Your task to perform on an android device: toggle improve location accuracy Image 0: 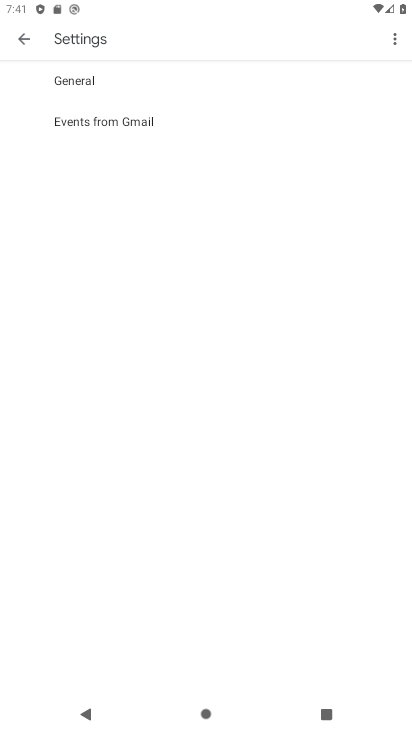
Step 0: press home button
Your task to perform on an android device: toggle improve location accuracy Image 1: 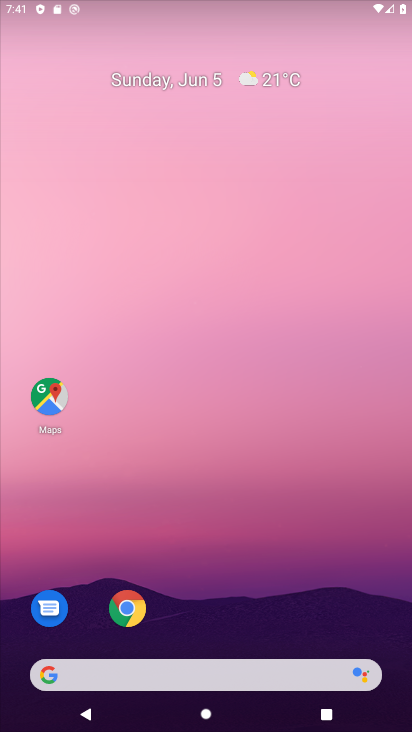
Step 1: drag from (289, 360) to (287, 113)
Your task to perform on an android device: toggle improve location accuracy Image 2: 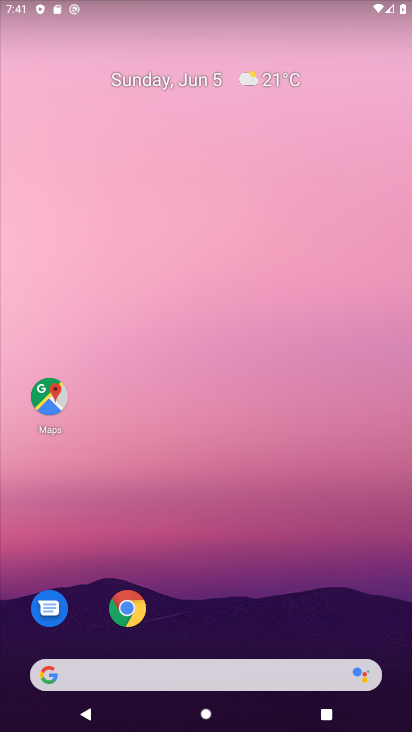
Step 2: drag from (340, 544) to (332, 191)
Your task to perform on an android device: toggle improve location accuracy Image 3: 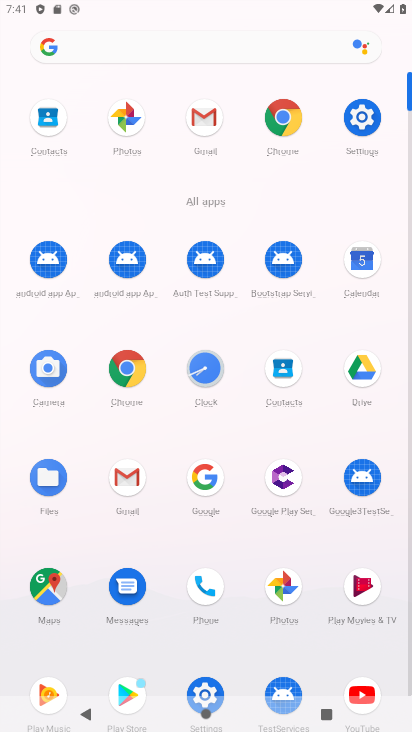
Step 3: click (344, 121)
Your task to perform on an android device: toggle improve location accuracy Image 4: 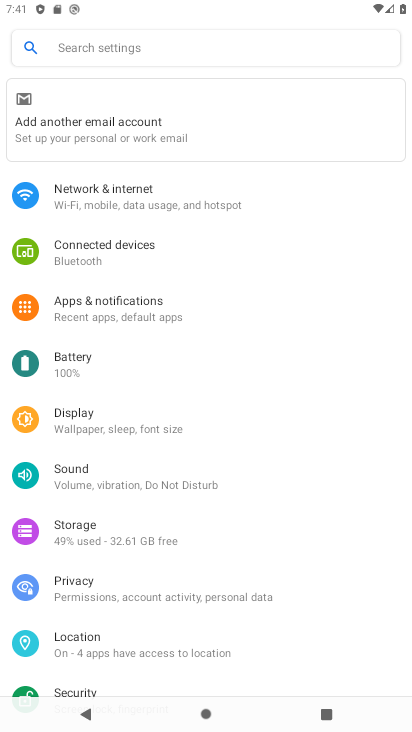
Step 4: click (204, 645)
Your task to perform on an android device: toggle improve location accuracy Image 5: 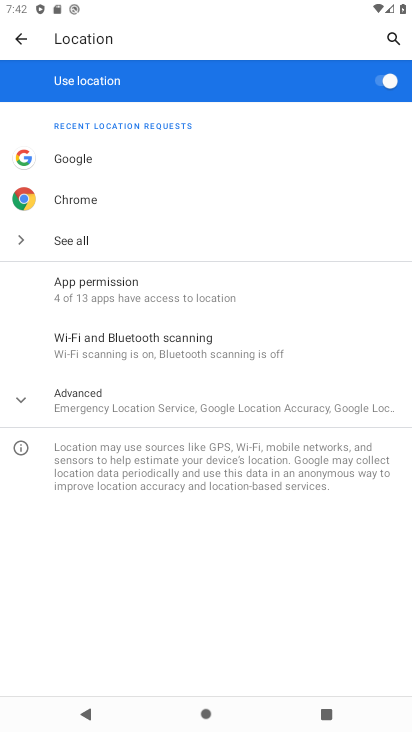
Step 5: click (167, 397)
Your task to perform on an android device: toggle improve location accuracy Image 6: 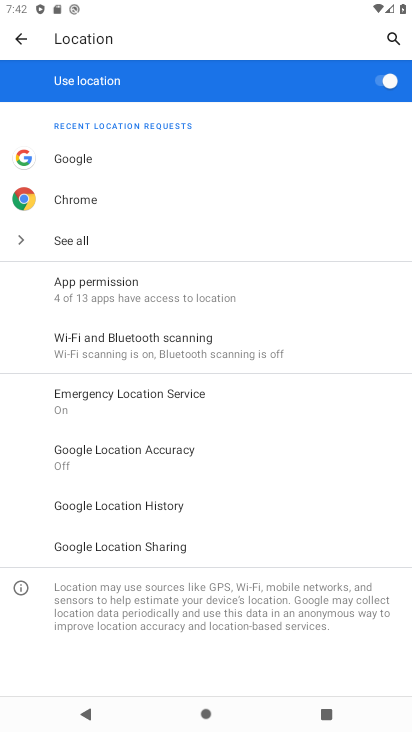
Step 6: click (221, 452)
Your task to perform on an android device: toggle improve location accuracy Image 7: 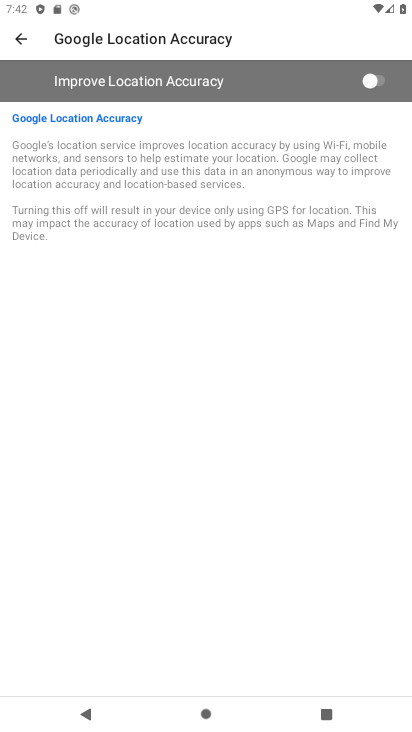
Step 7: click (390, 79)
Your task to perform on an android device: toggle improve location accuracy Image 8: 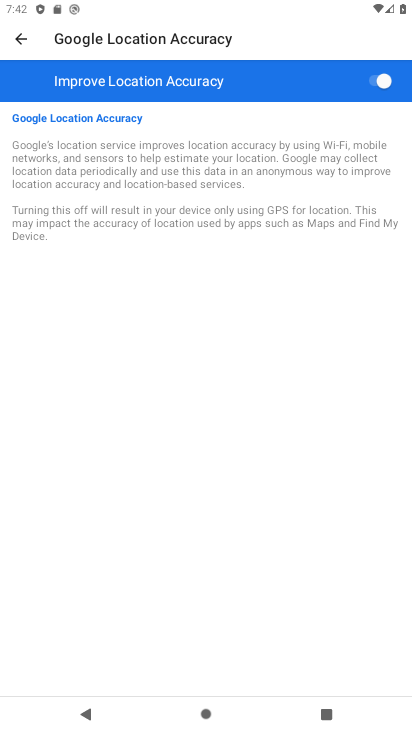
Step 8: task complete